Your task to perform on an android device: Open settings Image 0: 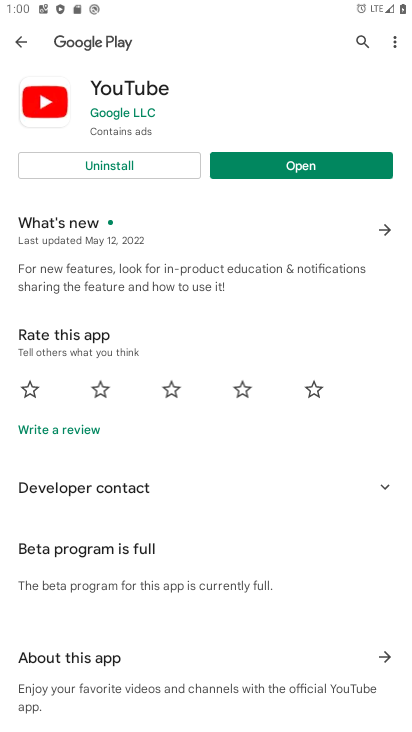
Step 0: press home button
Your task to perform on an android device: Open settings Image 1: 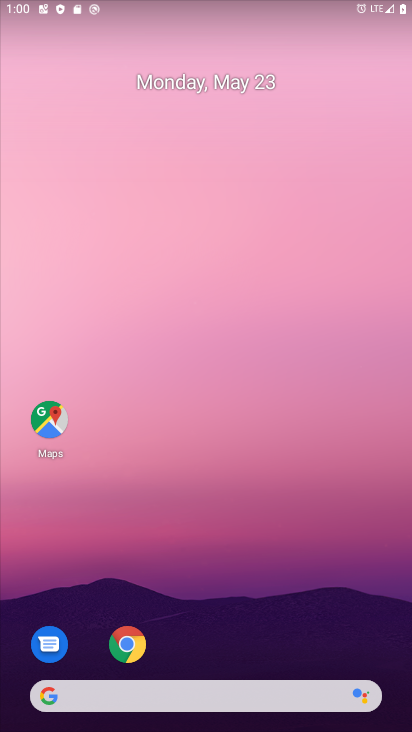
Step 1: drag from (330, 610) to (165, 65)
Your task to perform on an android device: Open settings Image 2: 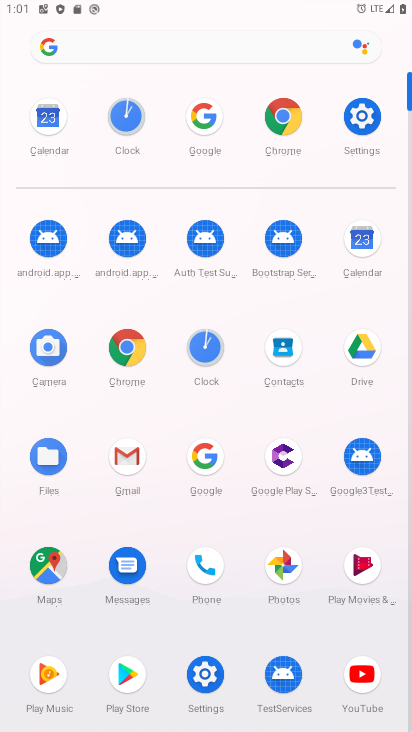
Step 2: click (201, 697)
Your task to perform on an android device: Open settings Image 3: 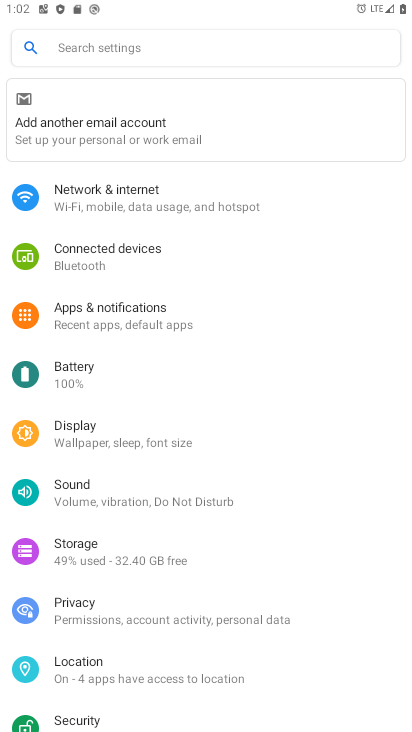
Step 3: task complete